Your task to perform on an android device: make emails show in primary in the gmail app Image 0: 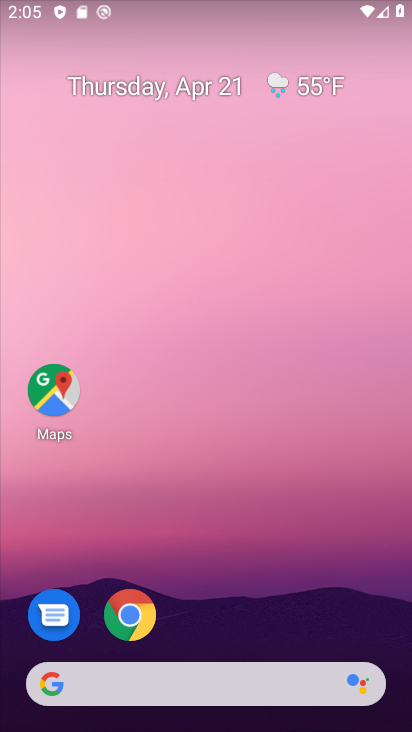
Step 0: drag from (199, 635) to (324, 35)
Your task to perform on an android device: make emails show in primary in the gmail app Image 1: 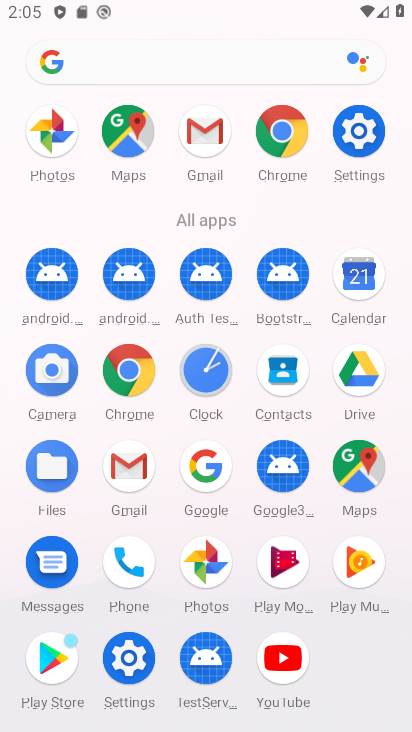
Step 1: click (124, 483)
Your task to perform on an android device: make emails show in primary in the gmail app Image 2: 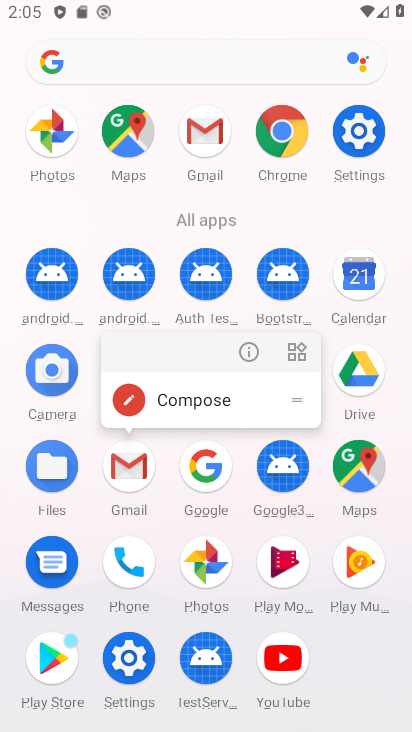
Step 2: click (122, 483)
Your task to perform on an android device: make emails show in primary in the gmail app Image 3: 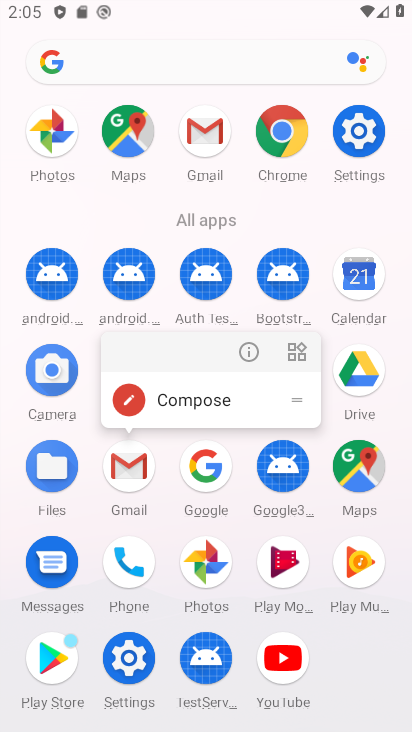
Step 3: click (122, 482)
Your task to perform on an android device: make emails show in primary in the gmail app Image 4: 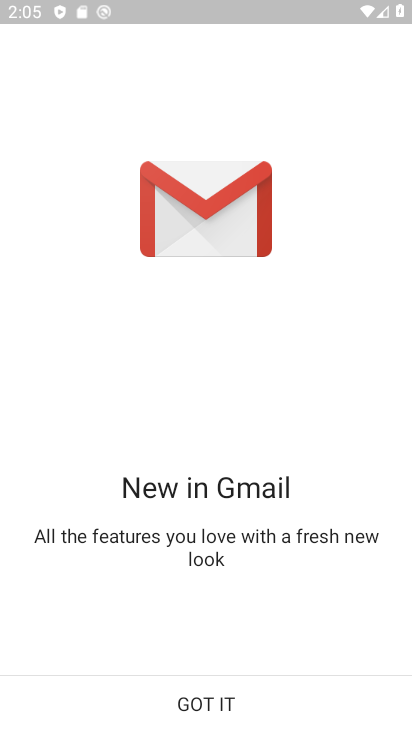
Step 4: click (237, 717)
Your task to perform on an android device: make emails show in primary in the gmail app Image 5: 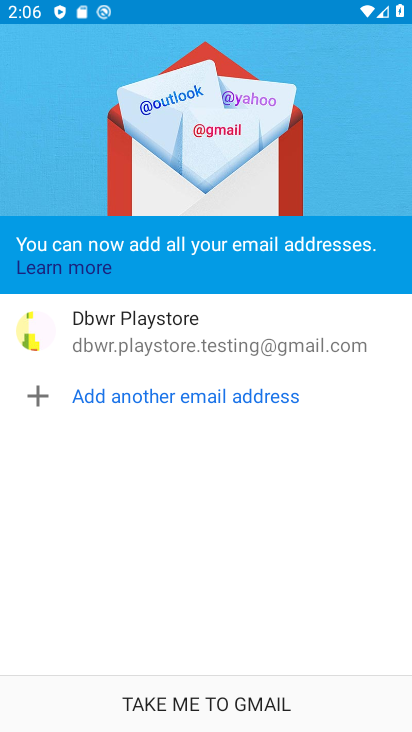
Step 5: click (190, 695)
Your task to perform on an android device: make emails show in primary in the gmail app Image 6: 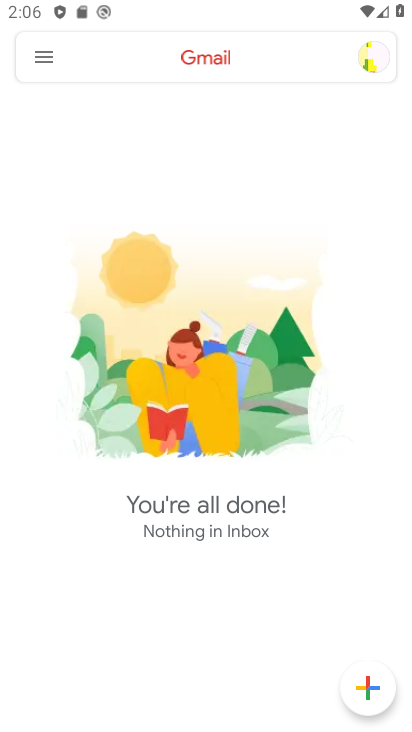
Step 6: click (43, 52)
Your task to perform on an android device: make emails show in primary in the gmail app Image 7: 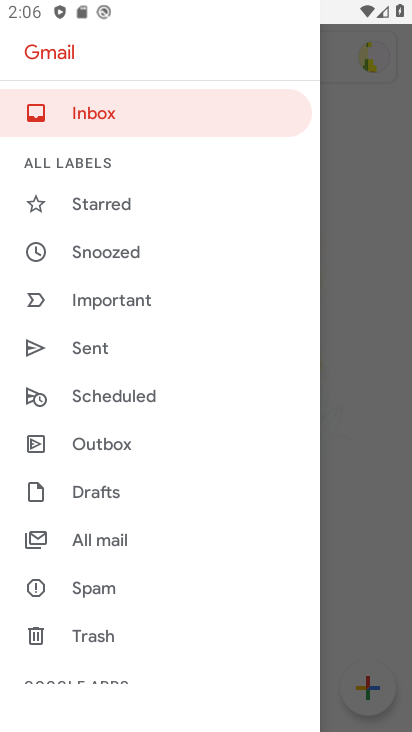
Step 7: drag from (138, 618) to (160, 141)
Your task to perform on an android device: make emails show in primary in the gmail app Image 8: 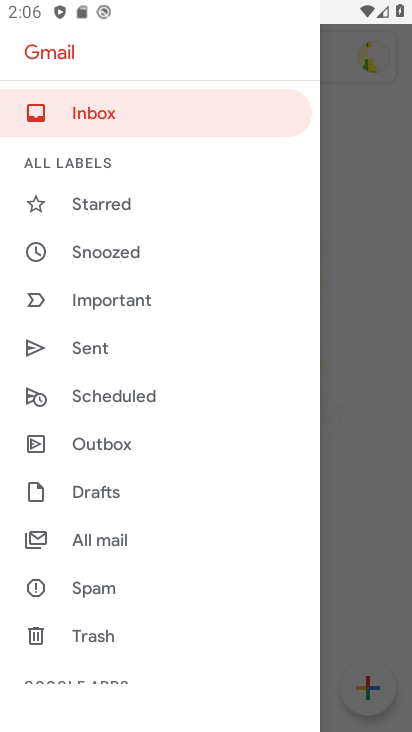
Step 8: drag from (95, 666) to (174, 204)
Your task to perform on an android device: make emails show in primary in the gmail app Image 9: 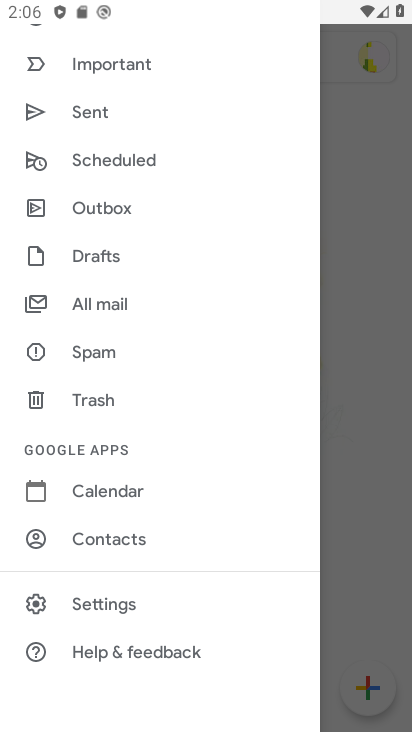
Step 9: click (117, 616)
Your task to perform on an android device: make emails show in primary in the gmail app Image 10: 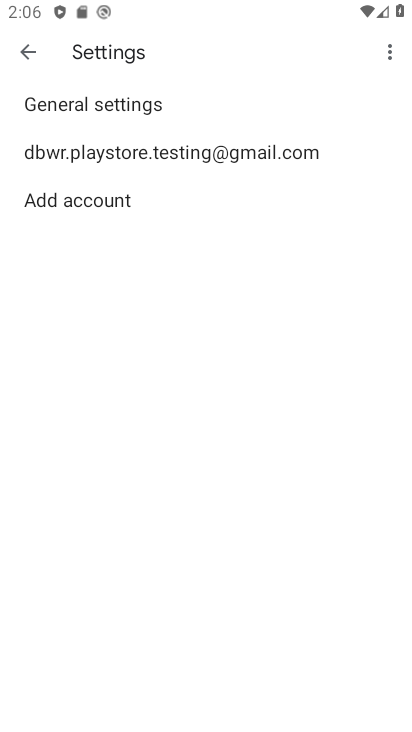
Step 10: click (135, 146)
Your task to perform on an android device: make emails show in primary in the gmail app Image 11: 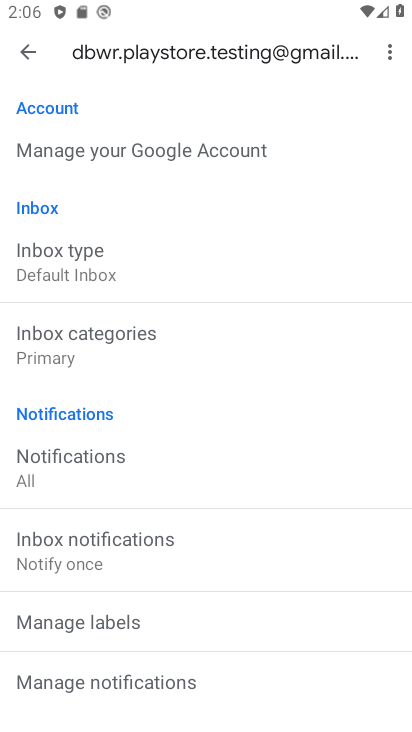
Step 11: task complete